Your task to perform on an android device: Open Yahoo.com Image 0: 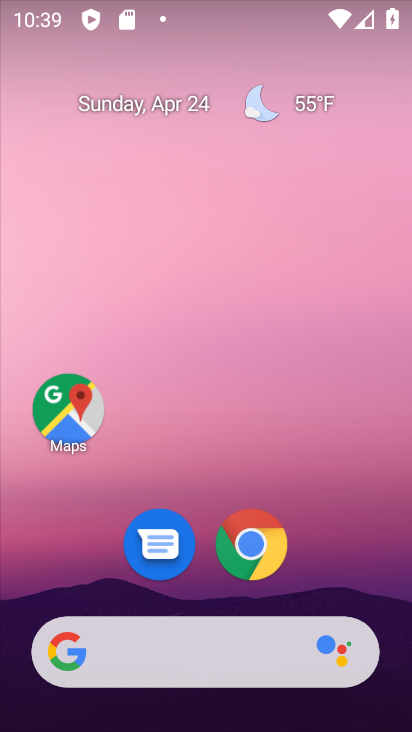
Step 0: click (251, 549)
Your task to perform on an android device: Open Yahoo.com Image 1: 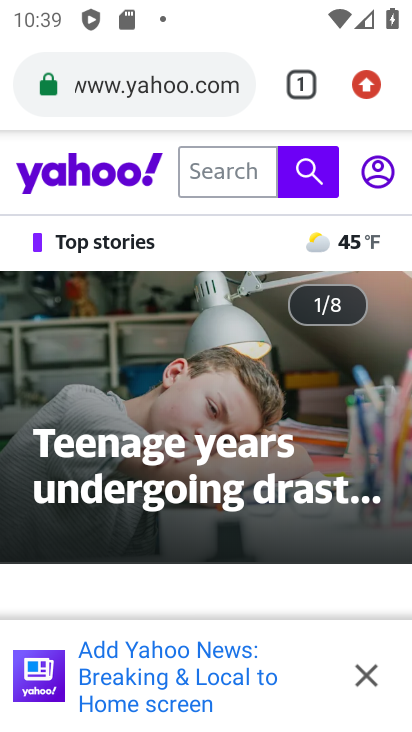
Step 1: task complete